Your task to perform on an android device: Open privacy settings Image 0: 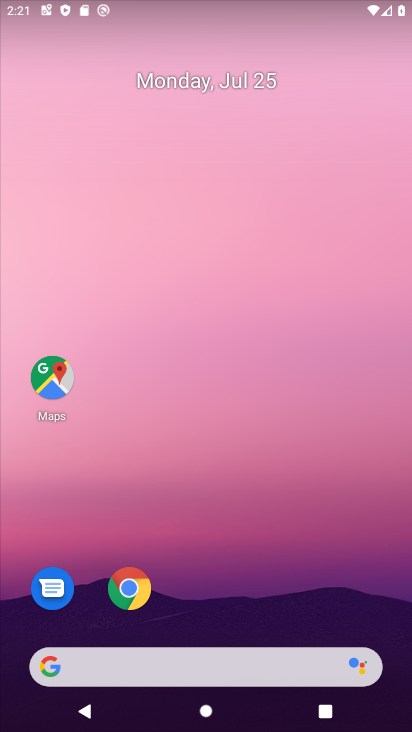
Step 0: drag from (195, 597) to (245, 0)
Your task to perform on an android device: Open privacy settings Image 1: 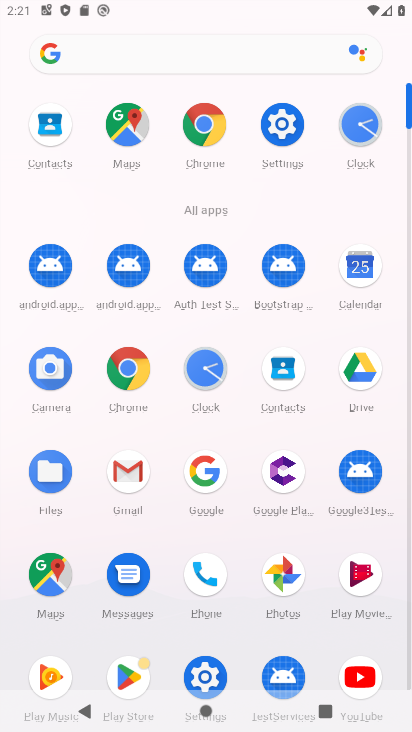
Step 1: click (270, 156)
Your task to perform on an android device: Open privacy settings Image 2: 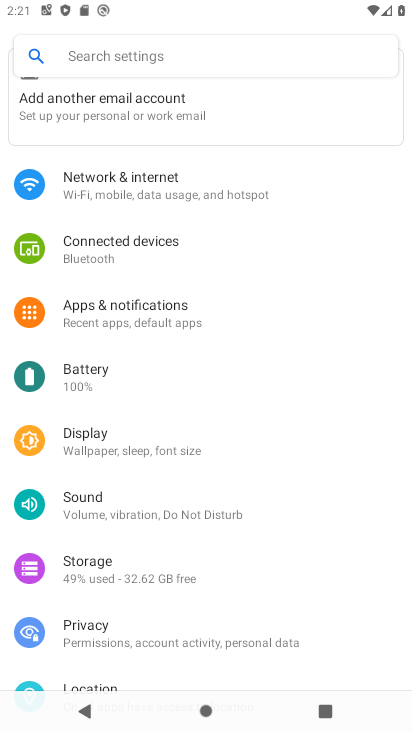
Step 2: click (69, 624)
Your task to perform on an android device: Open privacy settings Image 3: 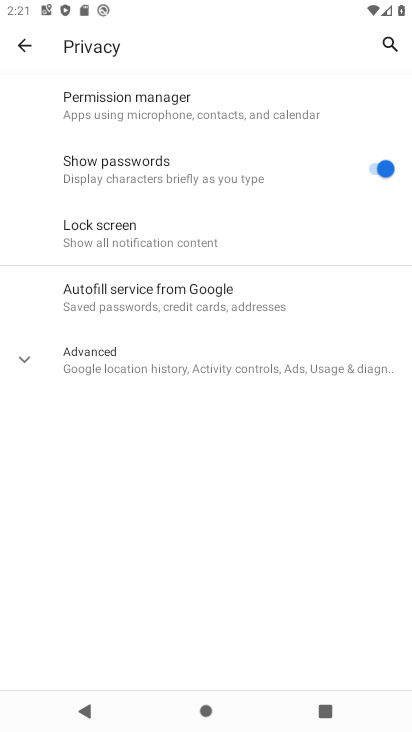
Step 3: task complete